Your task to perform on an android device: read, delete, or share a saved page in the chrome app Image 0: 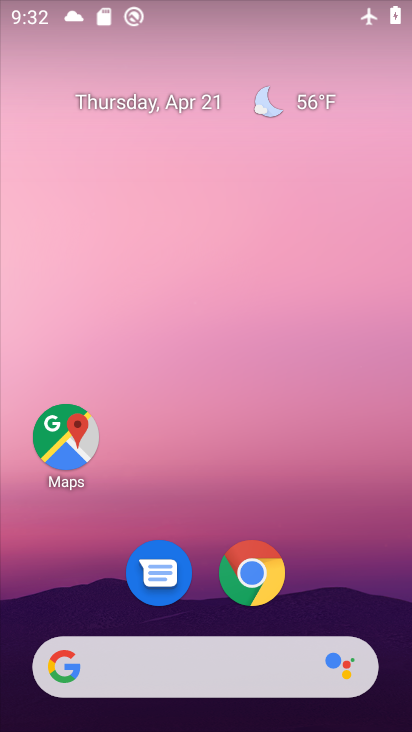
Step 0: click (255, 575)
Your task to perform on an android device: read, delete, or share a saved page in the chrome app Image 1: 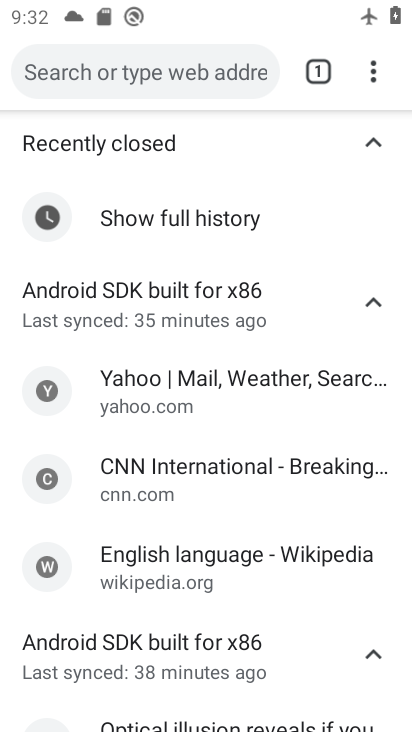
Step 1: click (373, 72)
Your task to perform on an android device: read, delete, or share a saved page in the chrome app Image 2: 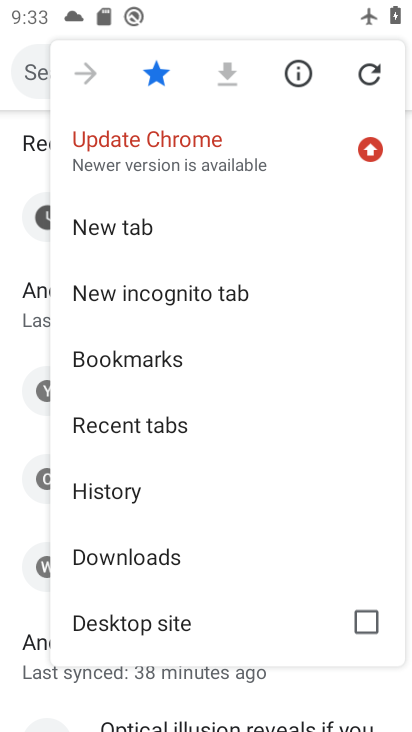
Step 2: click (145, 553)
Your task to perform on an android device: read, delete, or share a saved page in the chrome app Image 3: 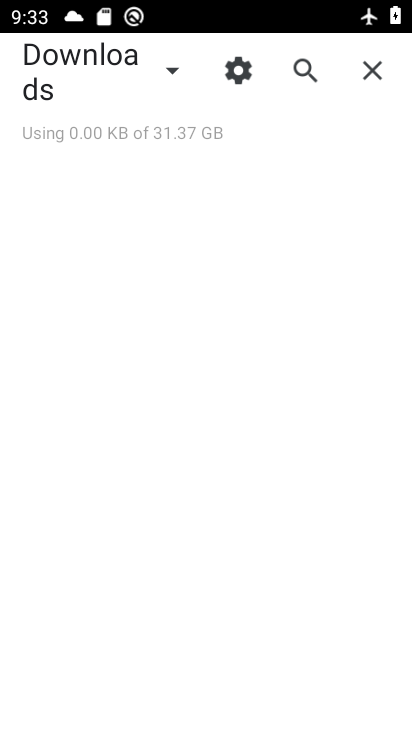
Step 3: click (170, 73)
Your task to perform on an android device: read, delete, or share a saved page in the chrome app Image 4: 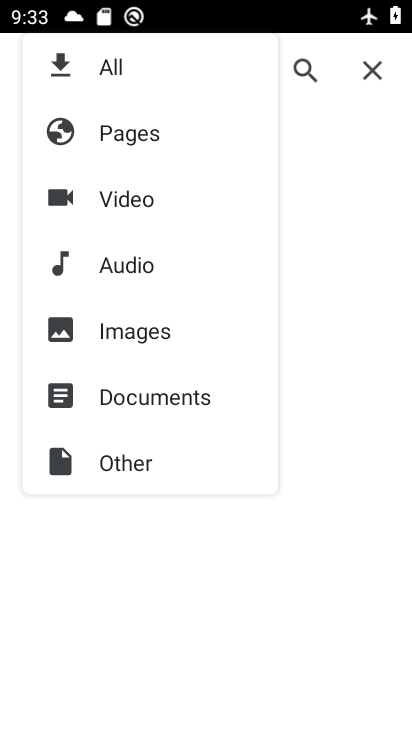
Step 4: click (153, 134)
Your task to perform on an android device: read, delete, or share a saved page in the chrome app Image 5: 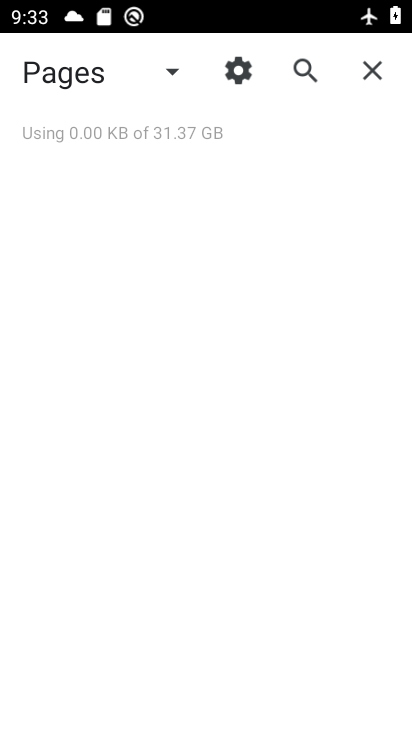
Step 5: task complete